Your task to perform on an android device: Open my contact list Image 0: 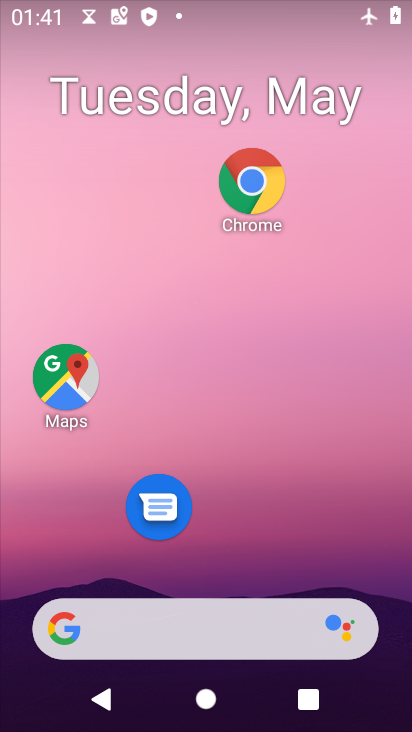
Step 0: click (248, 520)
Your task to perform on an android device: Open my contact list Image 1: 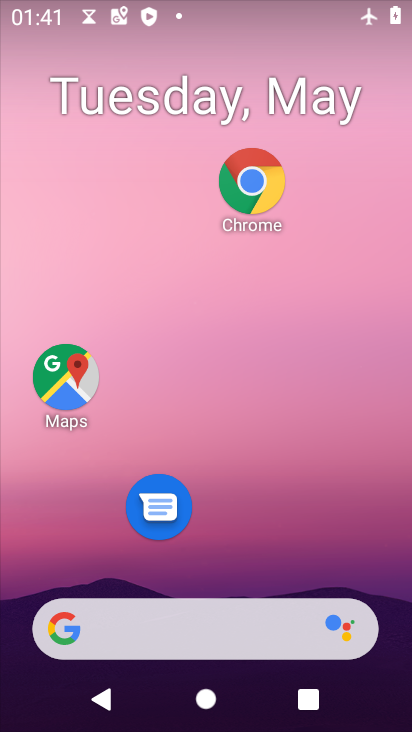
Step 1: drag from (241, 532) to (259, 305)
Your task to perform on an android device: Open my contact list Image 2: 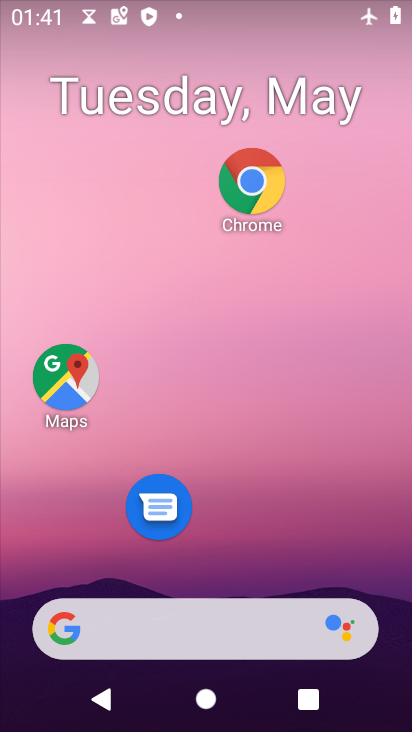
Step 2: drag from (239, 514) to (252, 293)
Your task to perform on an android device: Open my contact list Image 3: 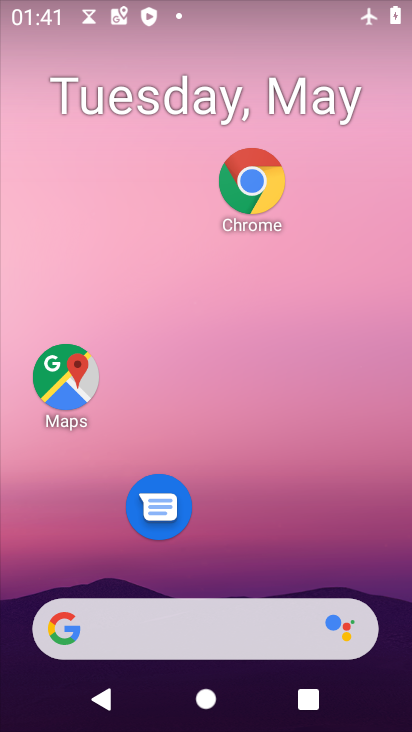
Step 3: drag from (312, 477) to (312, 254)
Your task to perform on an android device: Open my contact list Image 4: 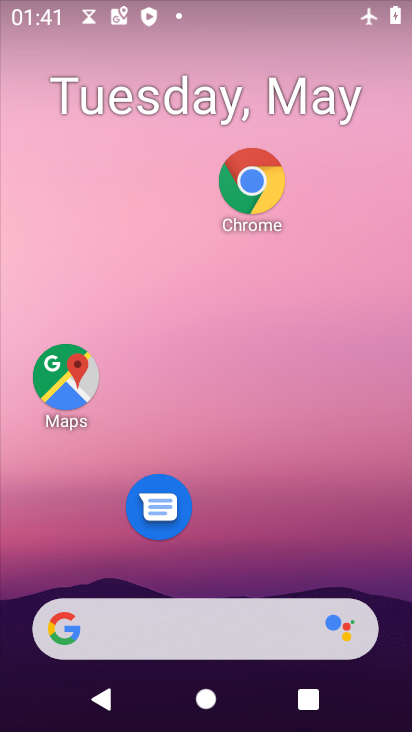
Step 4: drag from (267, 544) to (268, 286)
Your task to perform on an android device: Open my contact list Image 5: 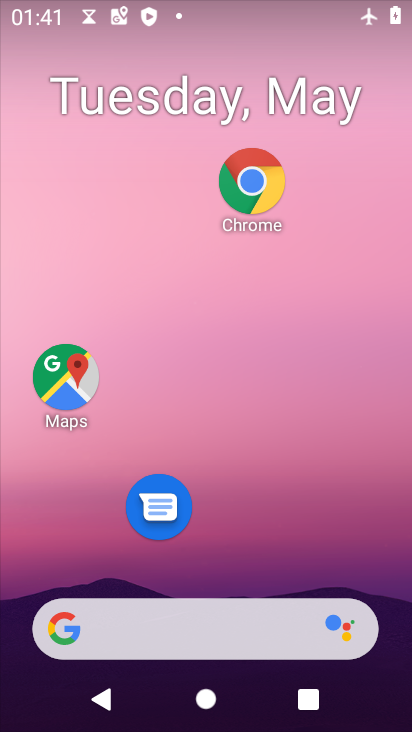
Step 5: drag from (202, 671) to (234, 250)
Your task to perform on an android device: Open my contact list Image 6: 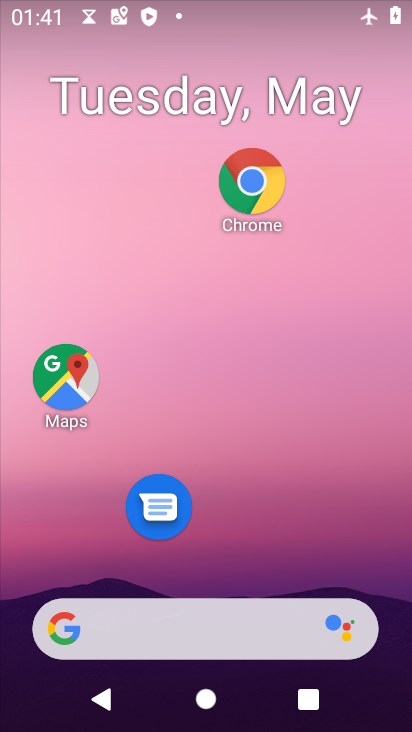
Step 6: drag from (209, 596) to (213, 164)
Your task to perform on an android device: Open my contact list Image 7: 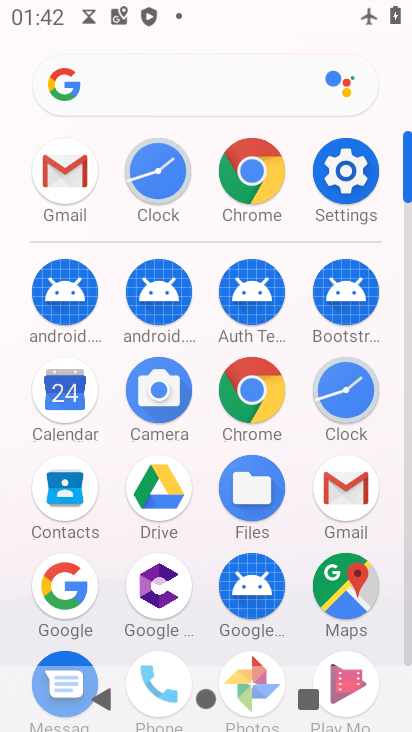
Step 7: click (164, 654)
Your task to perform on an android device: Open my contact list Image 8: 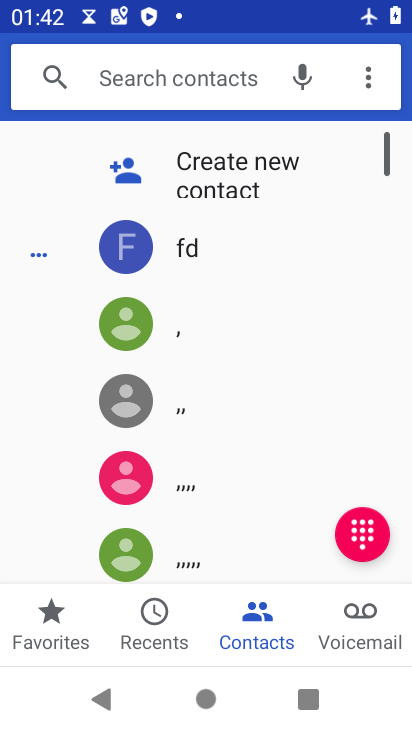
Step 8: click (232, 617)
Your task to perform on an android device: Open my contact list Image 9: 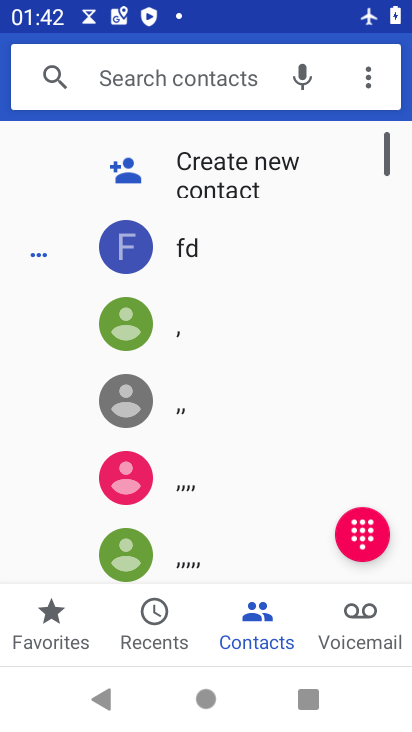
Step 9: task complete